Your task to perform on an android device: Go to Amazon Image 0: 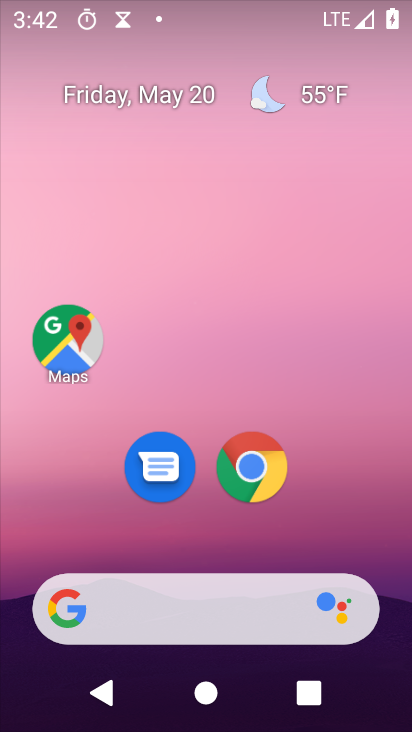
Step 0: click (237, 455)
Your task to perform on an android device: Go to Amazon Image 1: 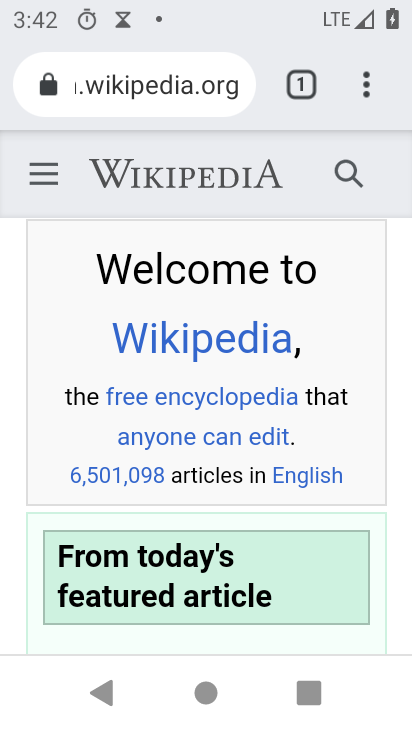
Step 1: click (135, 79)
Your task to perform on an android device: Go to Amazon Image 2: 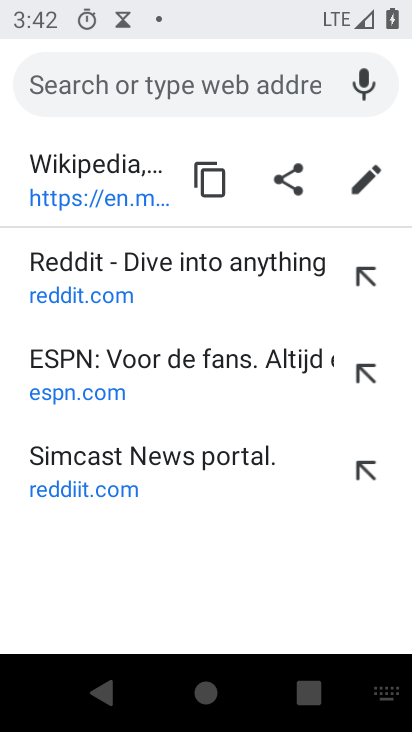
Step 2: type "Amazon"
Your task to perform on an android device: Go to Amazon Image 3: 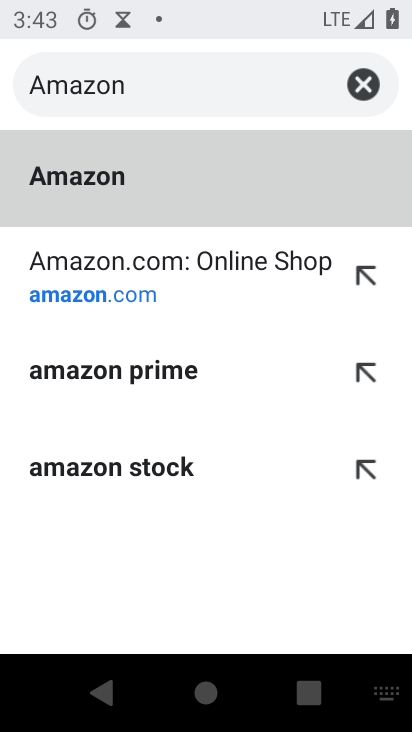
Step 3: click (105, 182)
Your task to perform on an android device: Go to Amazon Image 4: 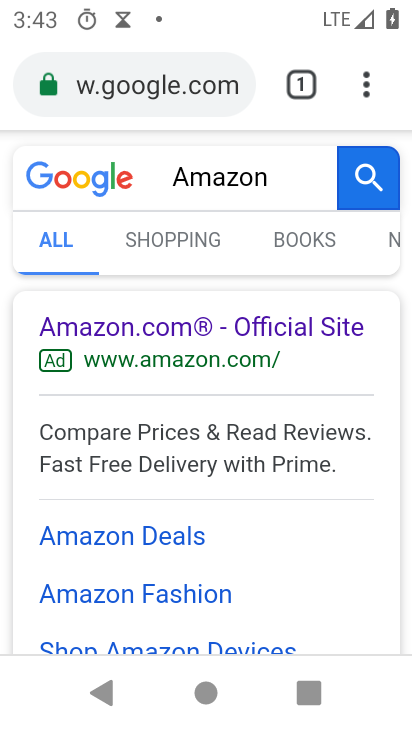
Step 4: click (112, 321)
Your task to perform on an android device: Go to Amazon Image 5: 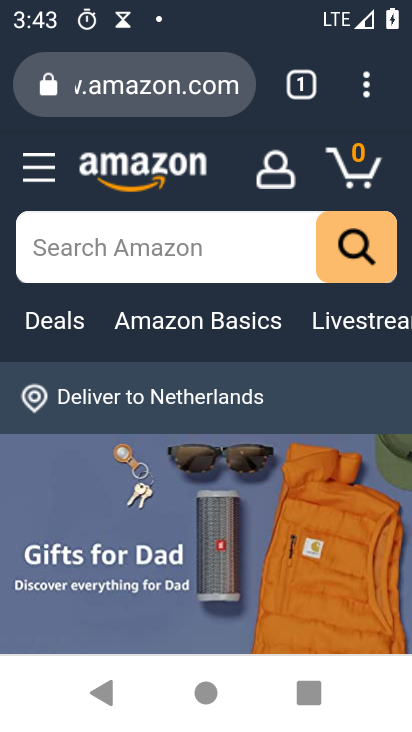
Step 5: task complete